Your task to perform on an android device: toggle location history Image 0: 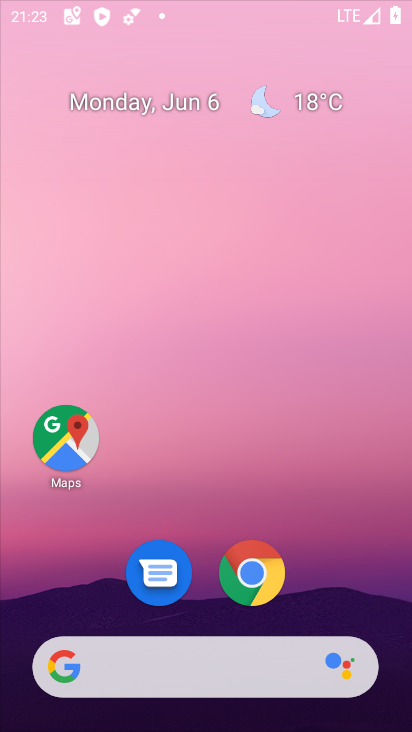
Step 0: press home button
Your task to perform on an android device: toggle location history Image 1: 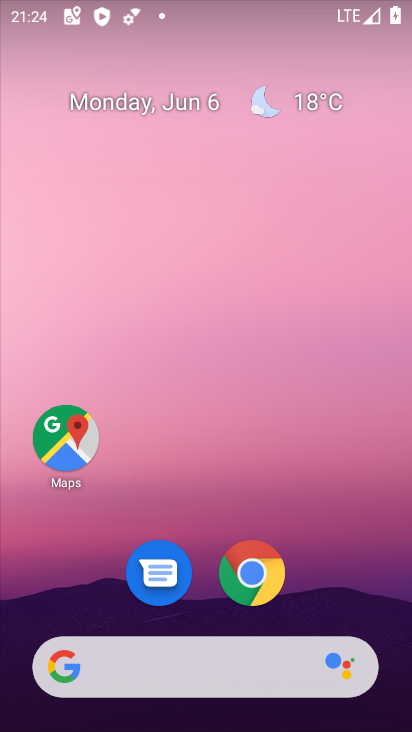
Step 1: drag from (364, 603) to (264, 191)
Your task to perform on an android device: toggle location history Image 2: 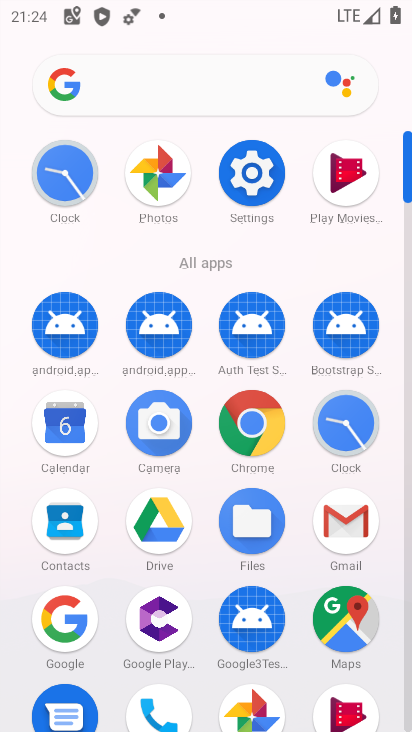
Step 2: click (353, 608)
Your task to perform on an android device: toggle location history Image 3: 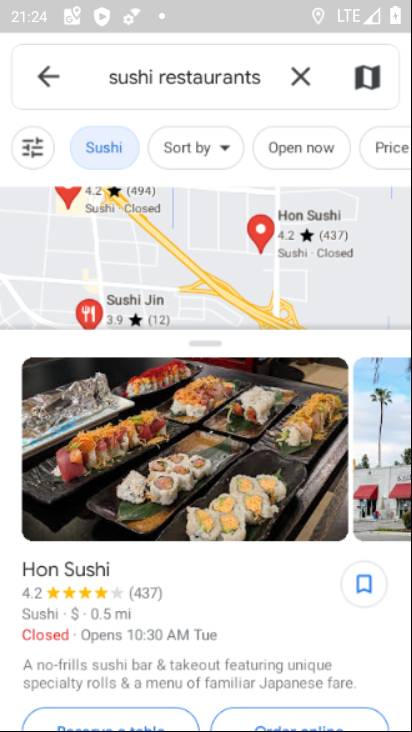
Step 3: click (54, 86)
Your task to perform on an android device: toggle location history Image 4: 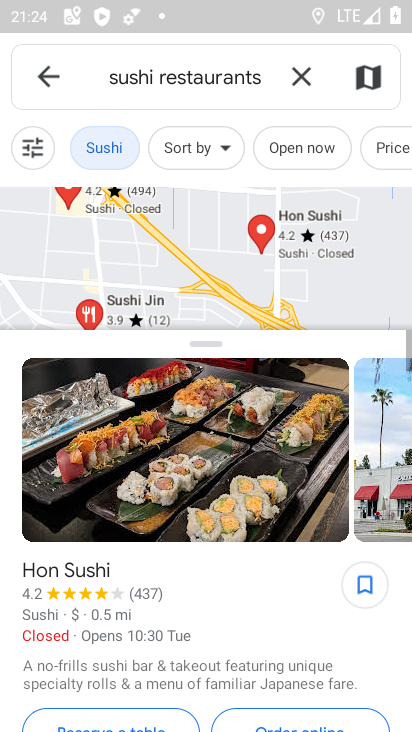
Step 4: click (41, 86)
Your task to perform on an android device: toggle location history Image 5: 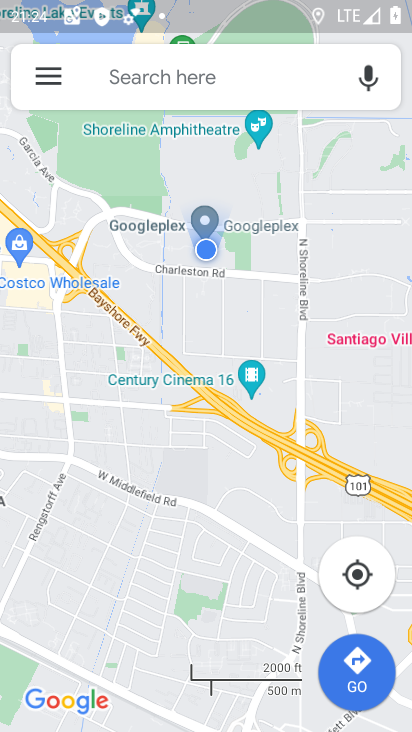
Step 5: click (41, 86)
Your task to perform on an android device: toggle location history Image 6: 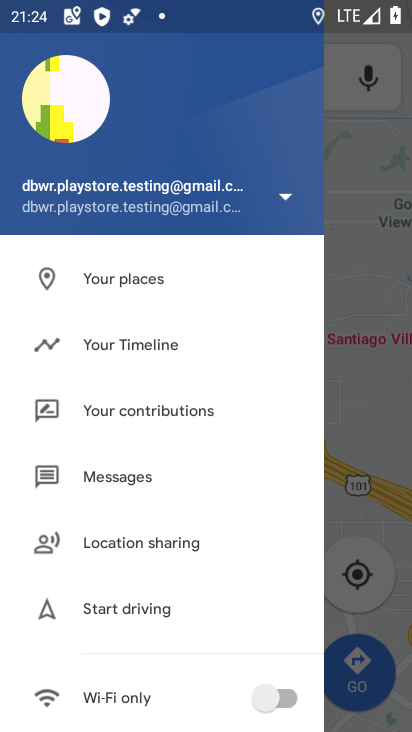
Step 6: click (161, 345)
Your task to perform on an android device: toggle location history Image 7: 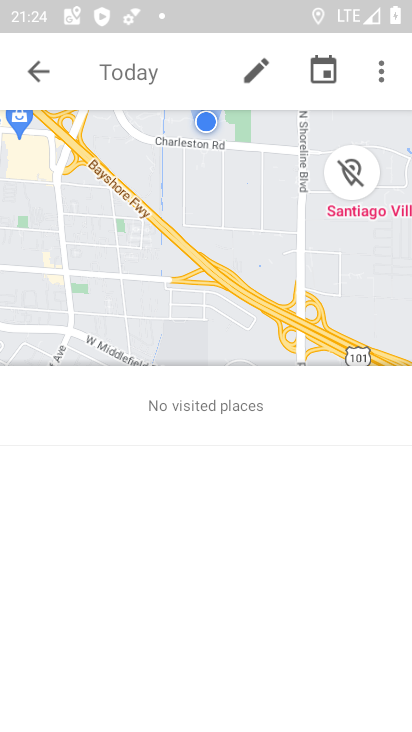
Step 7: click (375, 68)
Your task to perform on an android device: toggle location history Image 8: 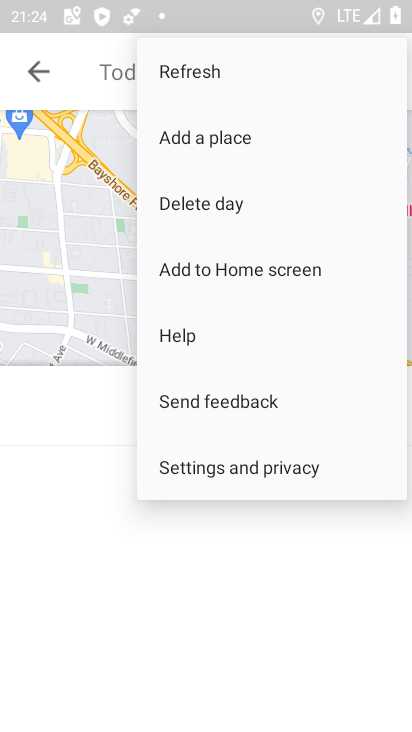
Step 8: click (242, 463)
Your task to perform on an android device: toggle location history Image 9: 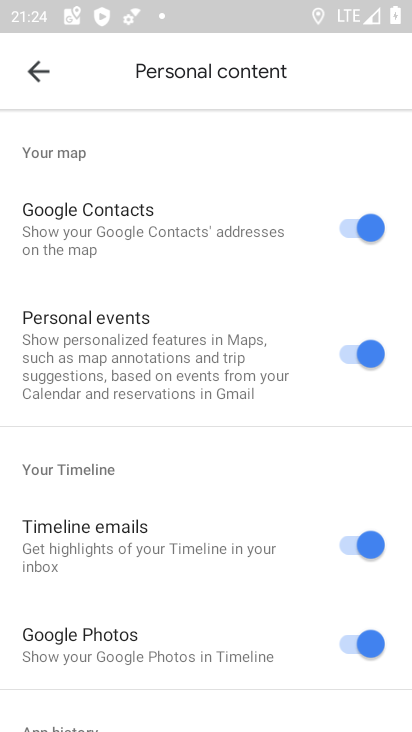
Step 9: drag from (232, 688) to (186, 104)
Your task to perform on an android device: toggle location history Image 10: 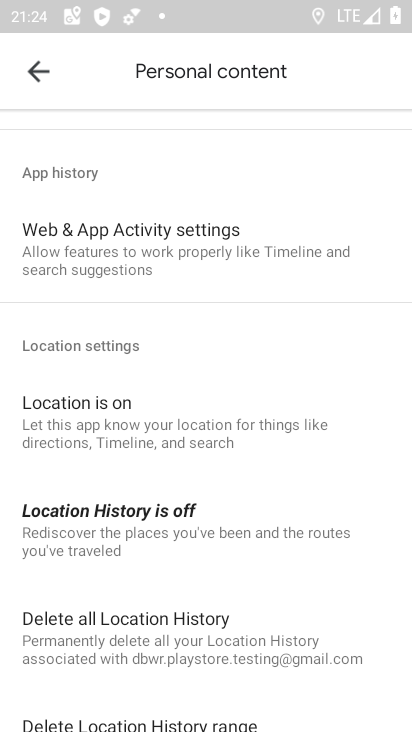
Step 10: click (172, 539)
Your task to perform on an android device: toggle location history Image 11: 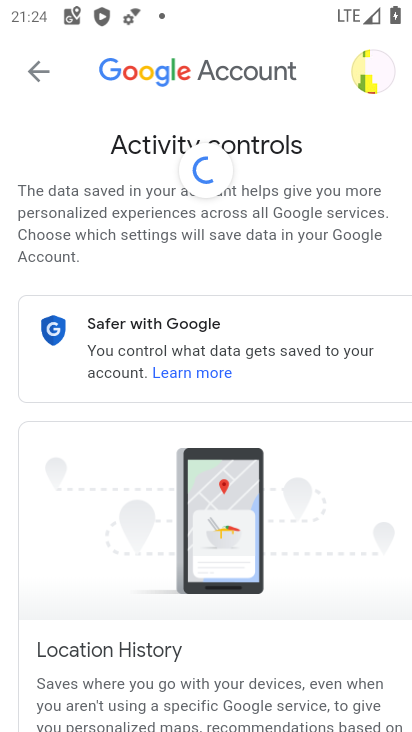
Step 11: drag from (278, 687) to (235, 174)
Your task to perform on an android device: toggle location history Image 12: 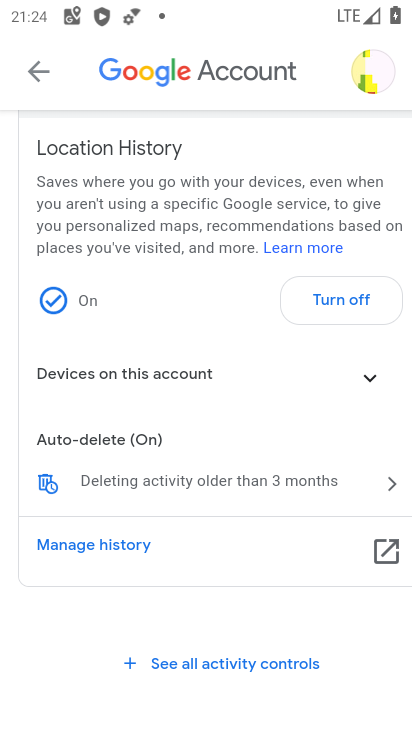
Step 12: click (346, 311)
Your task to perform on an android device: toggle location history Image 13: 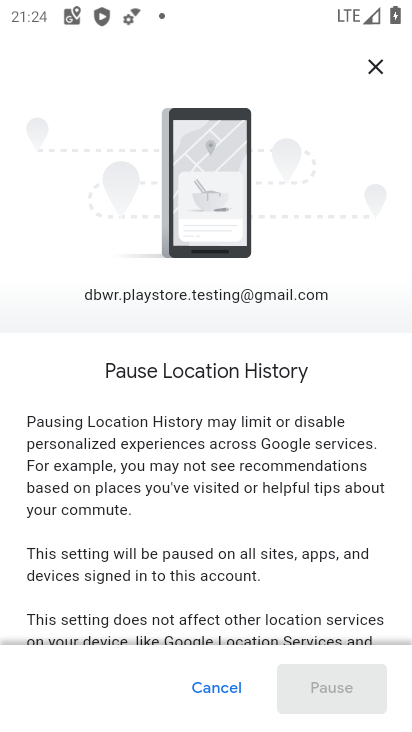
Step 13: drag from (353, 532) to (266, 94)
Your task to perform on an android device: toggle location history Image 14: 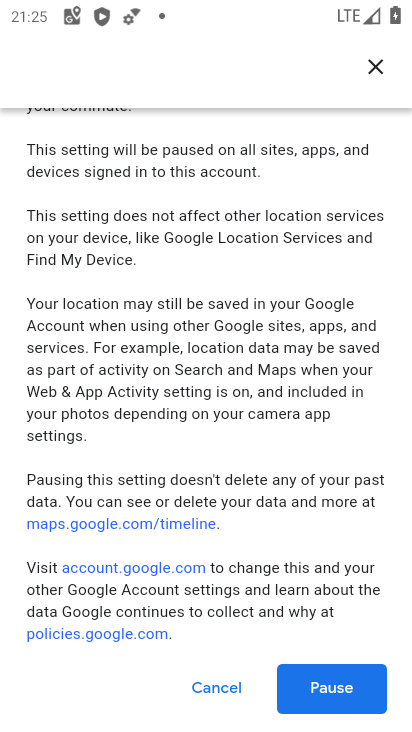
Step 14: click (331, 682)
Your task to perform on an android device: toggle location history Image 15: 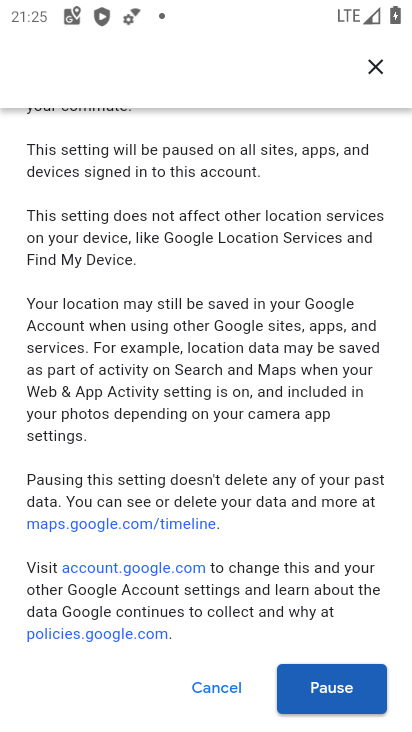
Step 15: click (370, 701)
Your task to perform on an android device: toggle location history Image 16: 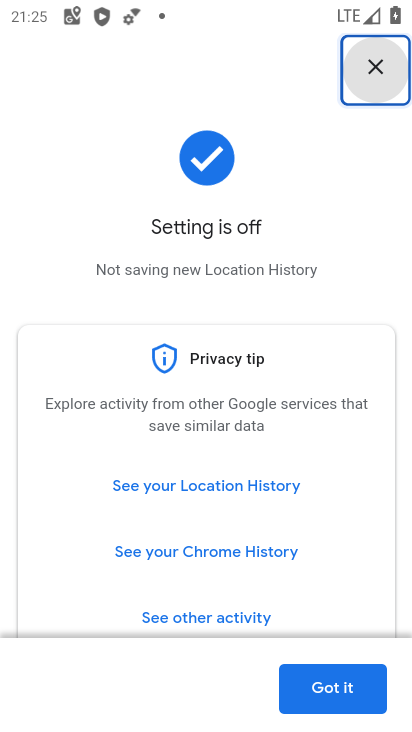
Step 16: click (370, 701)
Your task to perform on an android device: toggle location history Image 17: 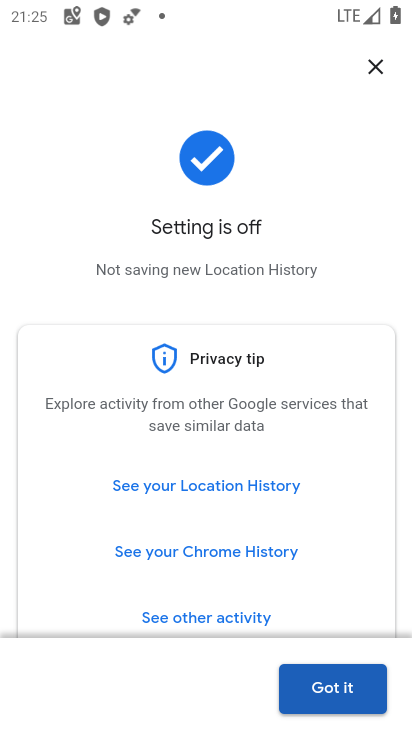
Step 17: click (348, 698)
Your task to perform on an android device: toggle location history Image 18: 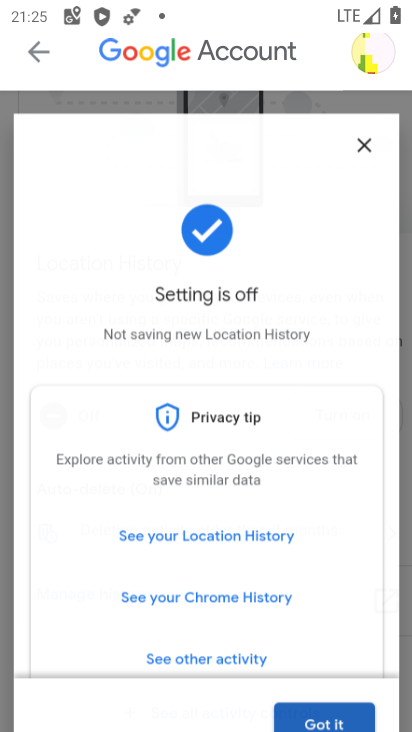
Step 18: click (338, 687)
Your task to perform on an android device: toggle location history Image 19: 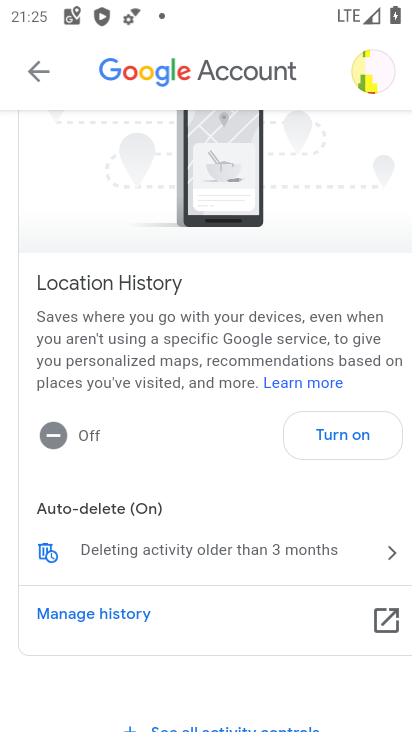
Step 19: task complete